Your task to perform on an android device: empty trash in the gmail app Image 0: 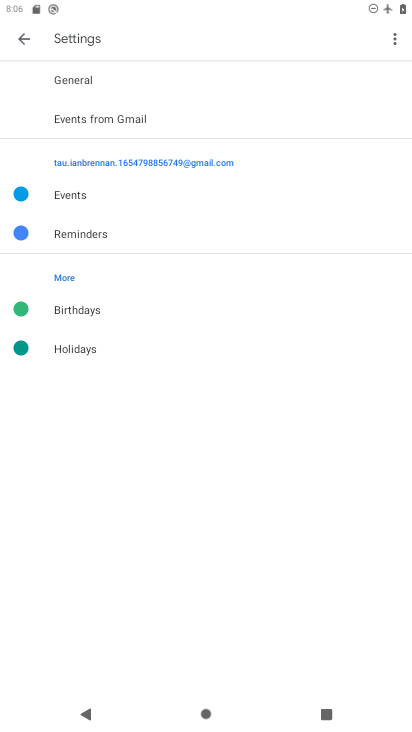
Step 0: press home button
Your task to perform on an android device: empty trash in the gmail app Image 1: 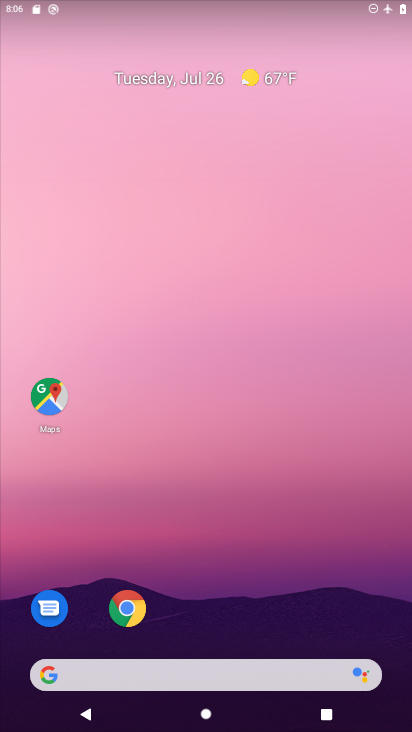
Step 1: drag from (196, 637) to (228, 0)
Your task to perform on an android device: empty trash in the gmail app Image 2: 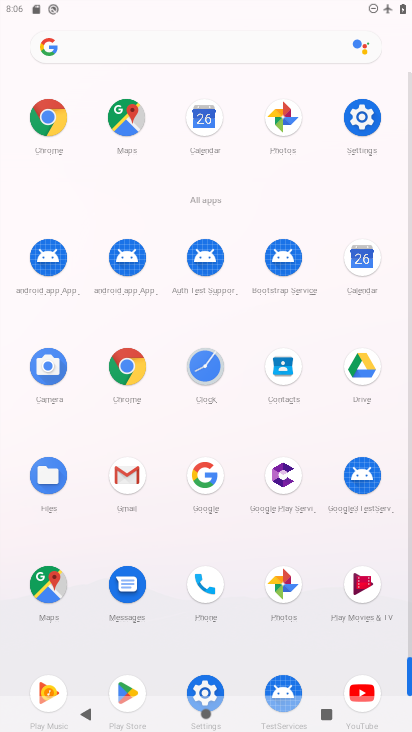
Step 2: click (122, 491)
Your task to perform on an android device: empty trash in the gmail app Image 3: 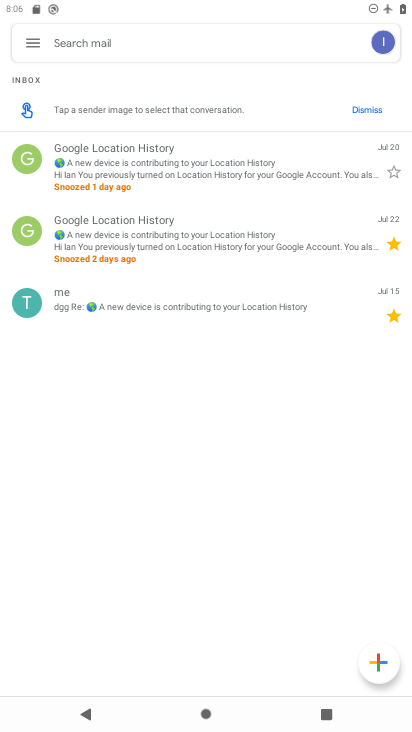
Step 3: click (23, 41)
Your task to perform on an android device: empty trash in the gmail app Image 4: 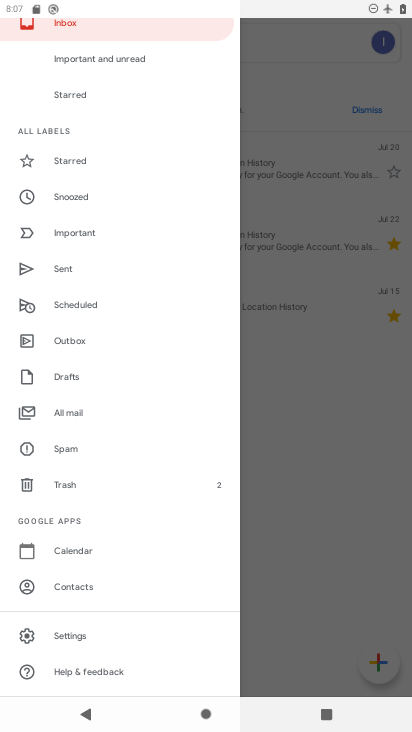
Step 4: click (77, 485)
Your task to perform on an android device: empty trash in the gmail app Image 5: 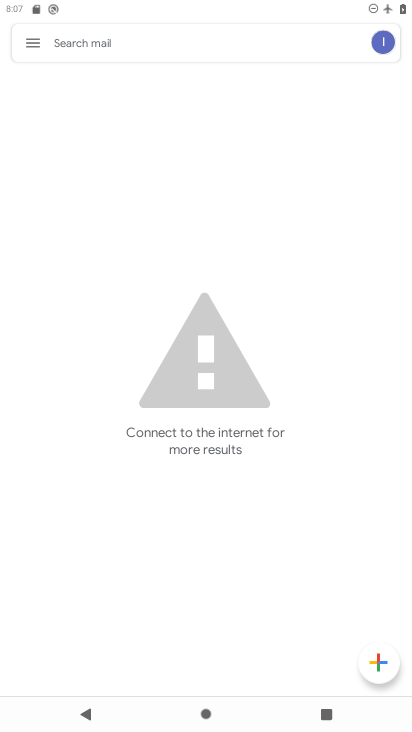
Step 5: task complete